Your task to perform on an android device: clear all cookies in the chrome app Image 0: 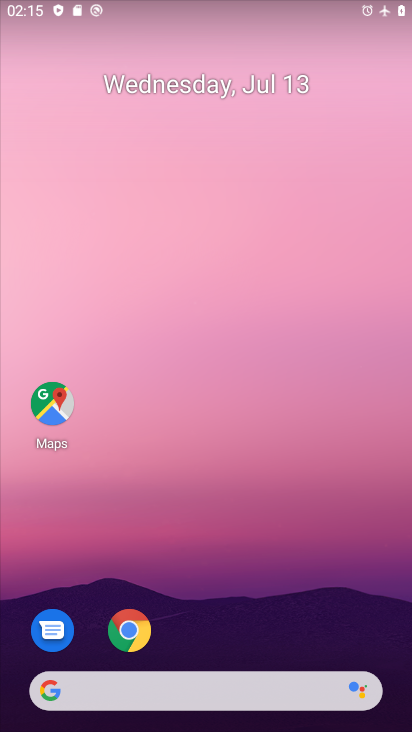
Step 0: click (134, 625)
Your task to perform on an android device: clear all cookies in the chrome app Image 1: 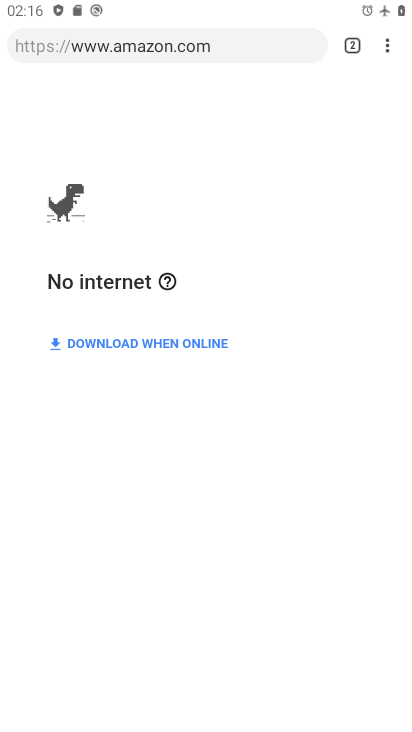
Step 1: click (383, 47)
Your task to perform on an android device: clear all cookies in the chrome app Image 2: 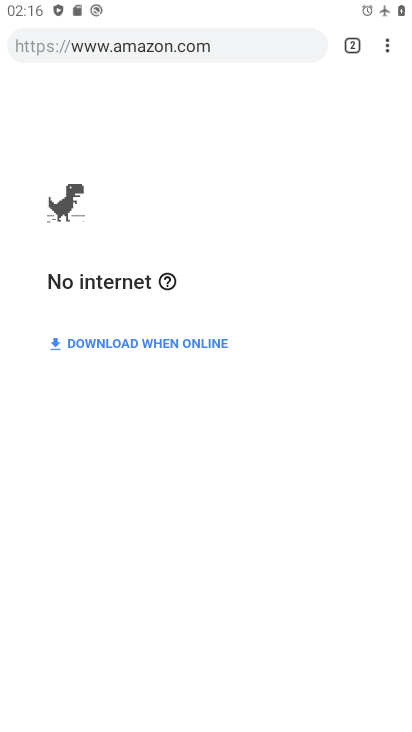
Step 2: task complete